Your task to perform on an android device: Is it going to rain this weekend? Image 0: 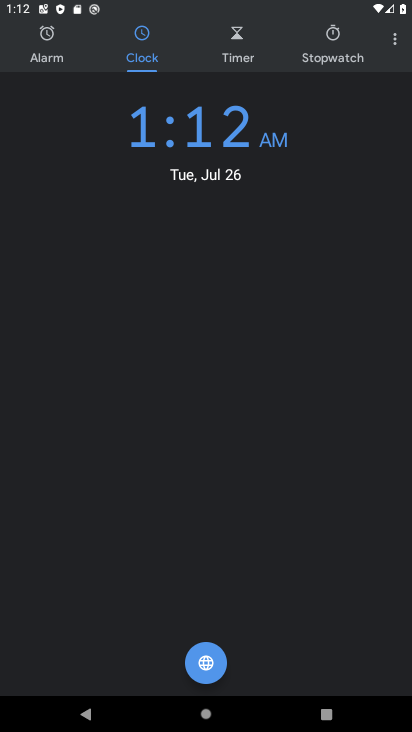
Step 0: press home button
Your task to perform on an android device: Is it going to rain this weekend? Image 1: 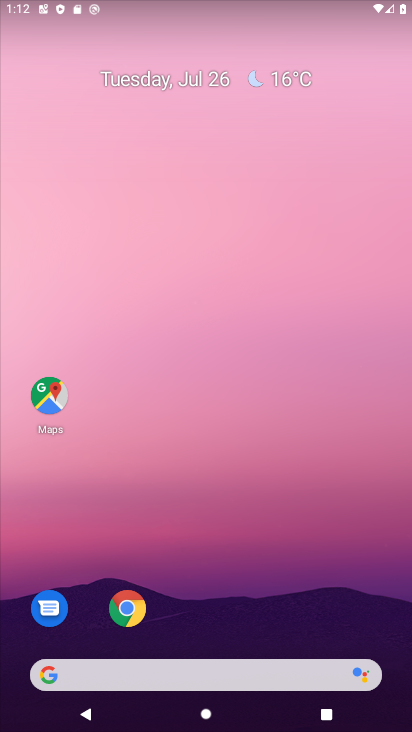
Step 1: drag from (262, 635) to (242, 108)
Your task to perform on an android device: Is it going to rain this weekend? Image 2: 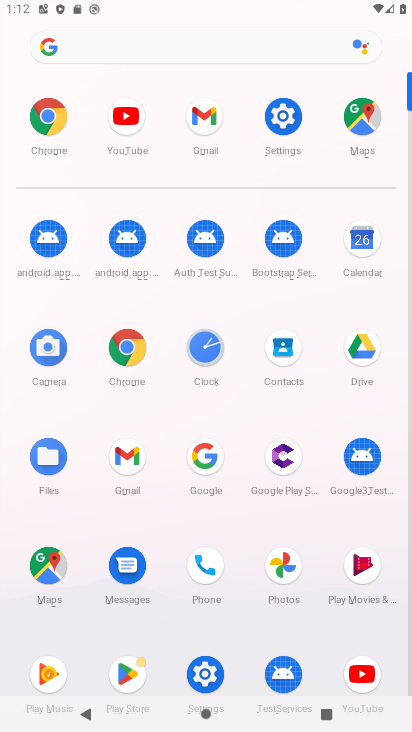
Step 2: click (189, 52)
Your task to perform on an android device: Is it going to rain this weekend? Image 3: 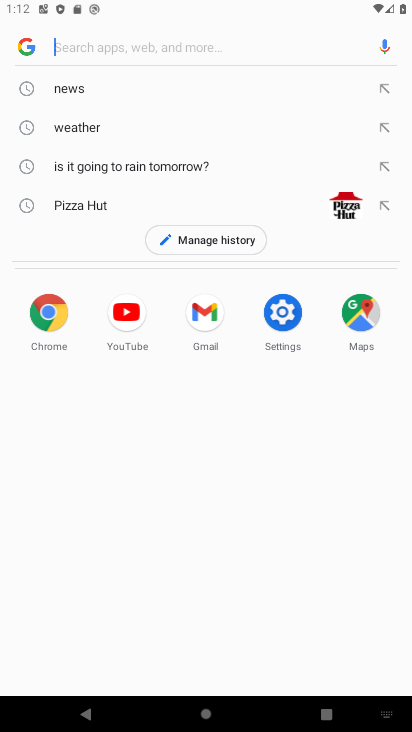
Step 3: click (150, 160)
Your task to perform on an android device: Is it going to rain this weekend? Image 4: 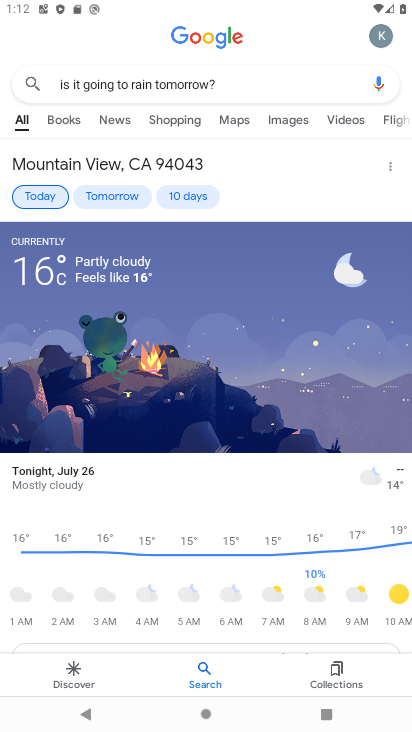
Step 4: task complete